Your task to perform on an android device: change alarm snooze length Image 0: 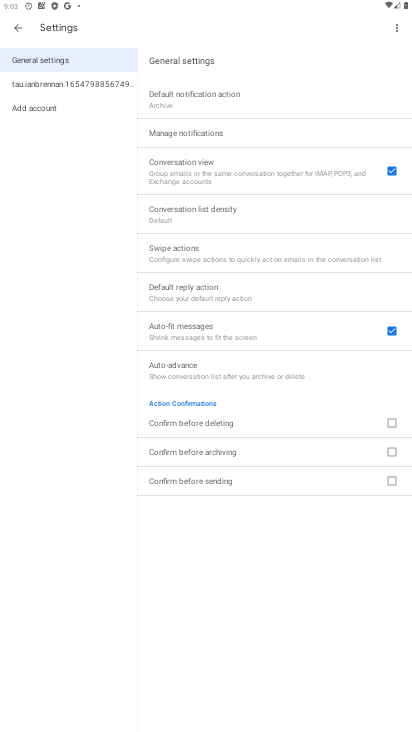
Step 0: click (102, 88)
Your task to perform on an android device: change alarm snooze length Image 1: 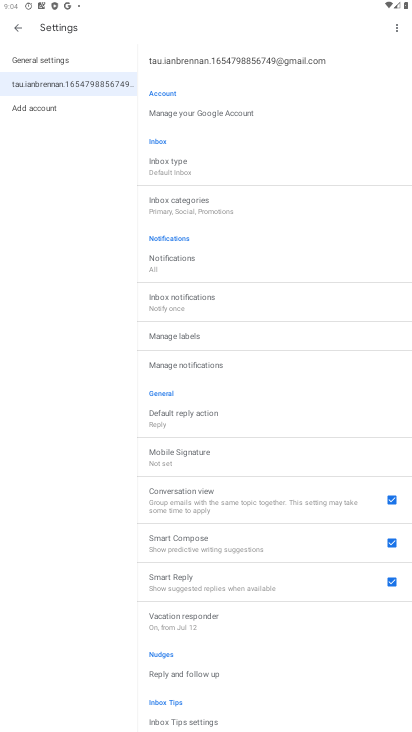
Step 1: click (17, 22)
Your task to perform on an android device: change alarm snooze length Image 2: 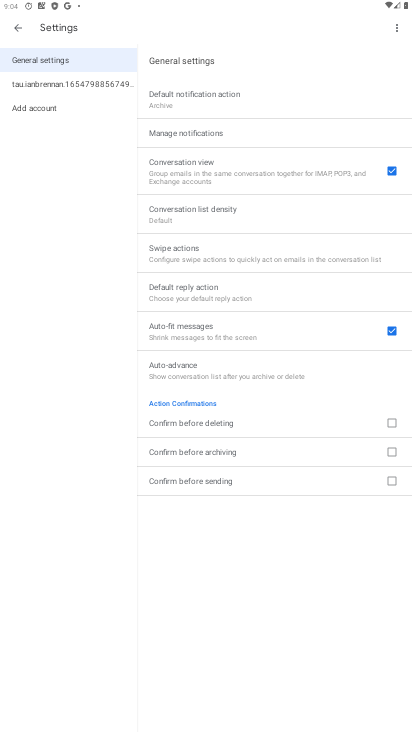
Step 2: click (90, 73)
Your task to perform on an android device: change alarm snooze length Image 3: 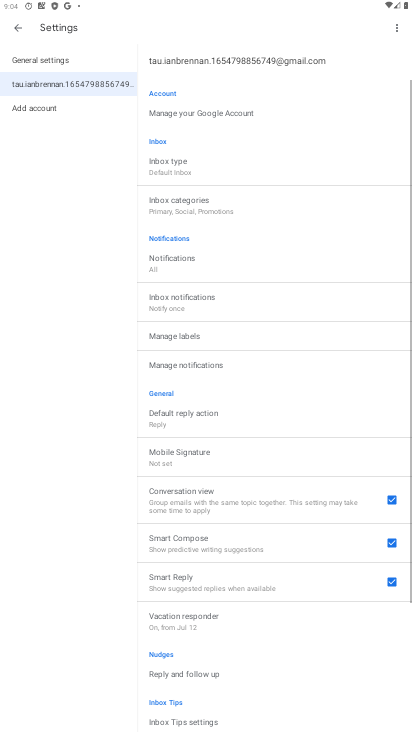
Step 3: drag from (248, 225) to (282, 79)
Your task to perform on an android device: change alarm snooze length Image 4: 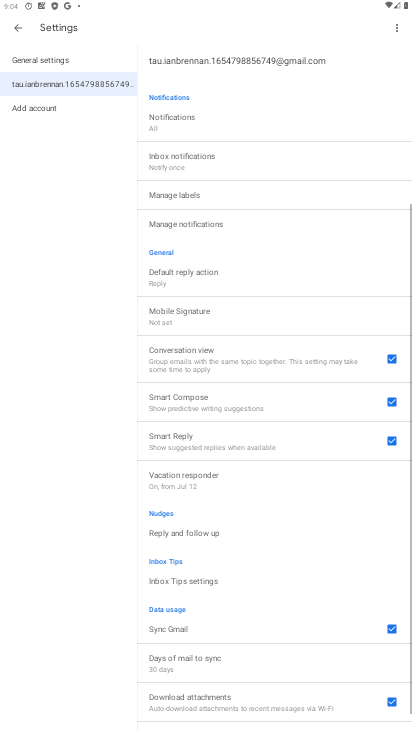
Step 4: drag from (253, 150) to (293, 721)
Your task to perform on an android device: change alarm snooze length Image 5: 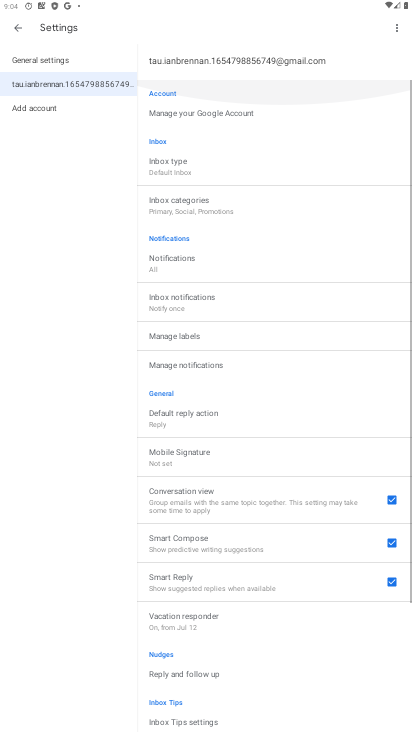
Step 5: drag from (304, 481) to (299, 226)
Your task to perform on an android device: change alarm snooze length Image 6: 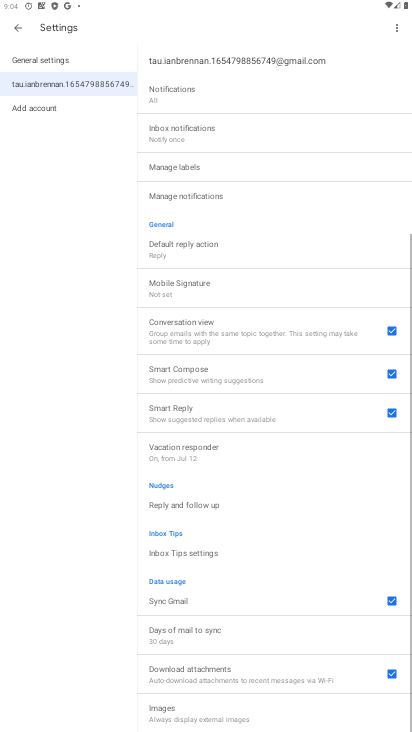
Step 6: drag from (281, 140) to (255, 642)
Your task to perform on an android device: change alarm snooze length Image 7: 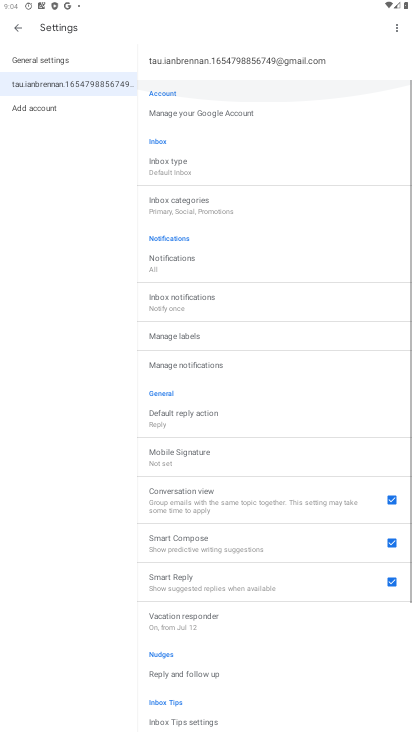
Step 7: drag from (271, 408) to (306, 142)
Your task to perform on an android device: change alarm snooze length Image 8: 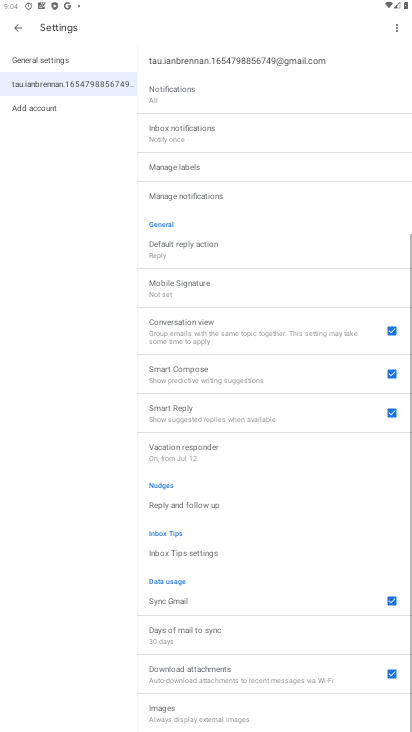
Step 8: drag from (258, 203) to (348, 731)
Your task to perform on an android device: change alarm snooze length Image 9: 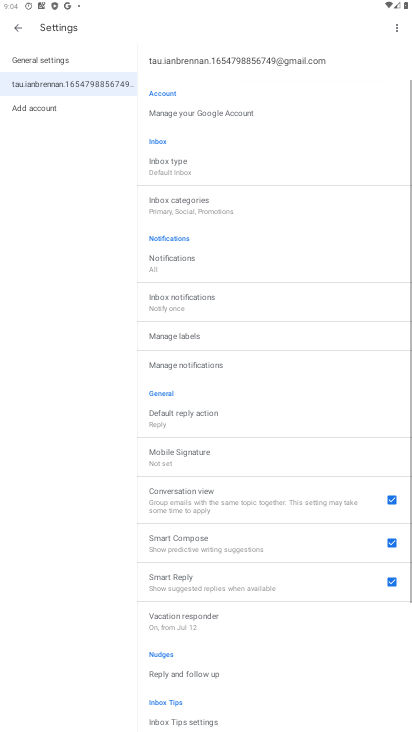
Step 9: drag from (302, 439) to (336, 123)
Your task to perform on an android device: change alarm snooze length Image 10: 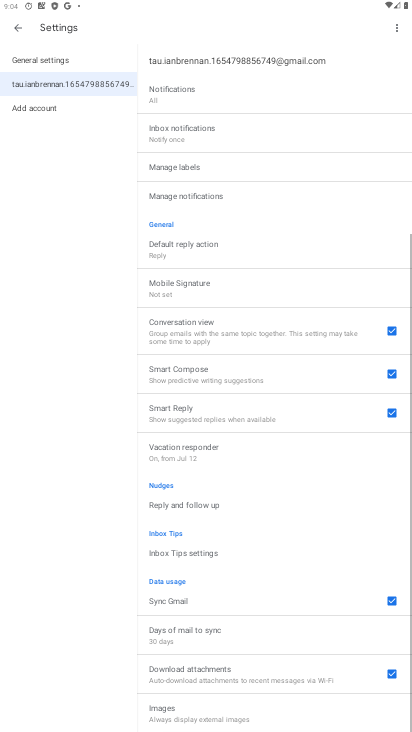
Step 10: drag from (253, 237) to (333, 730)
Your task to perform on an android device: change alarm snooze length Image 11: 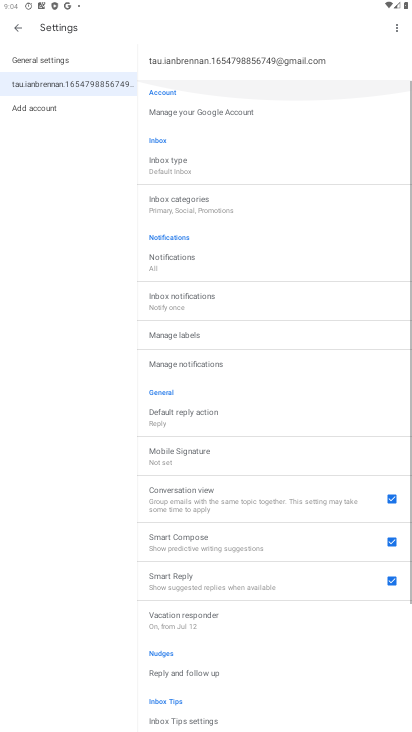
Step 11: drag from (323, 545) to (371, 147)
Your task to perform on an android device: change alarm snooze length Image 12: 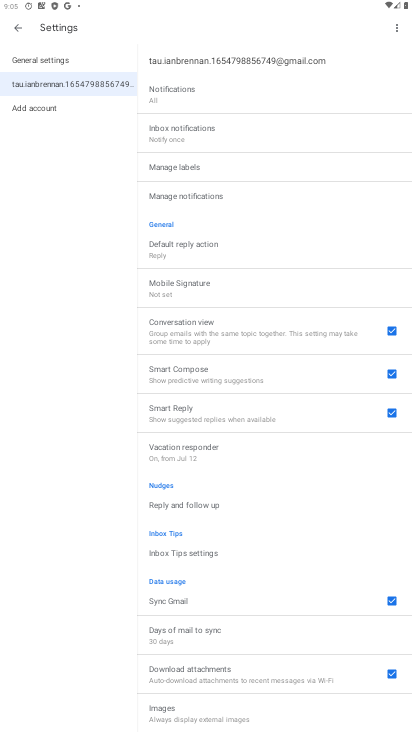
Step 12: press home button
Your task to perform on an android device: change alarm snooze length Image 13: 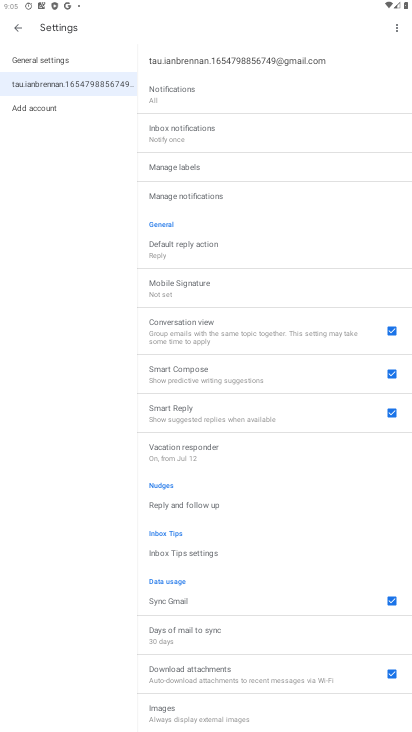
Step 13: press home button
Your task to perform on an android device: change alarm snooze length Image 14: 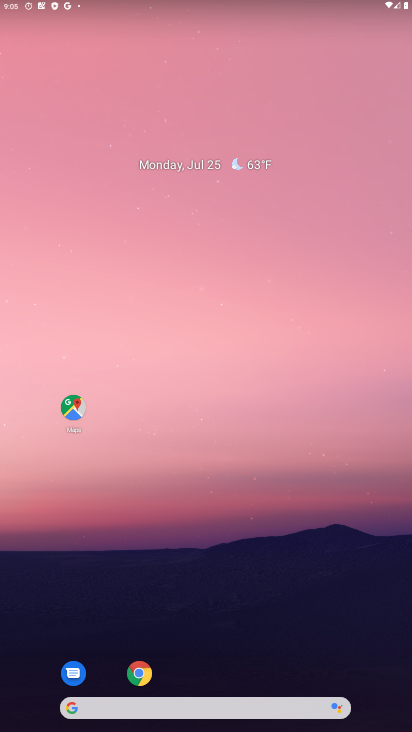
Step 14: drag from (248, 567) to (302, 282)
Your task to perform on an android device: change alarm snooze length Image 15: 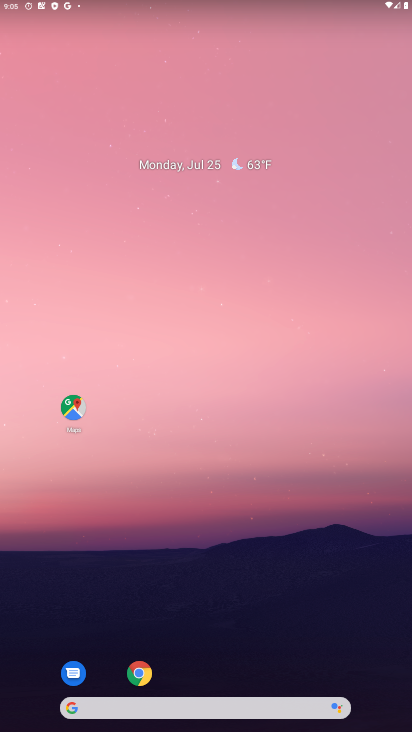
Step 15: drag from (181, 657) to (204, 198)
Your task to perform on an android device: change alarm snooze length Image 16: 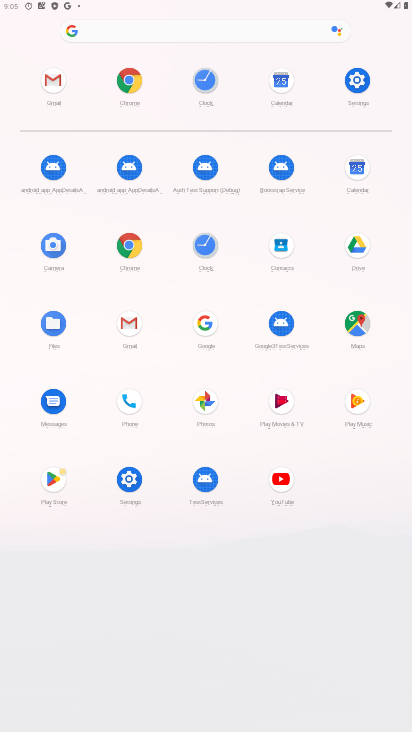
Step 16: click (200, 248)
Your task to perform on an android device: change alarm snooze length Image 17: 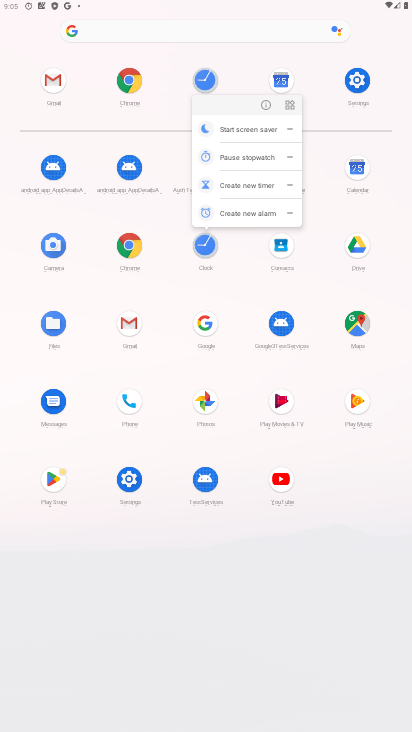
Step 17: click (267, 104)
Your task to perform on an android device: change alarm snooze length Image 18: 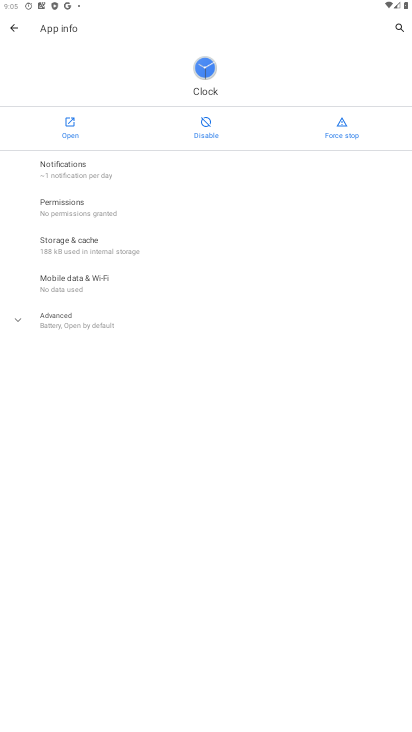
Step 18: click (72, 132)
Your task to perform on an android device: change alarm snooze length Image 19: 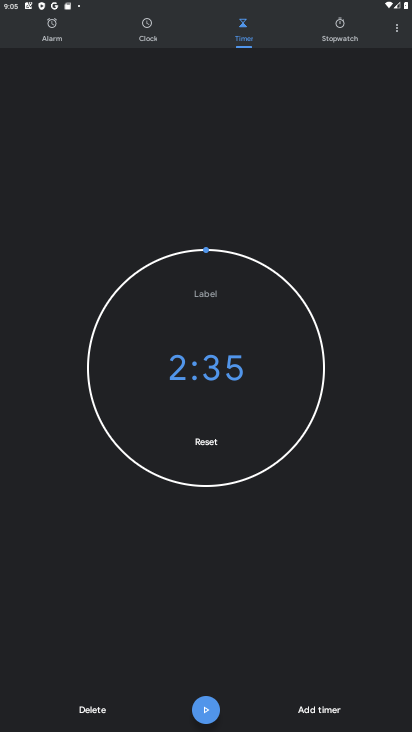
Step 19: click (394, 32)
Your task to perform on an android device: change alarm snooze length Image 20: 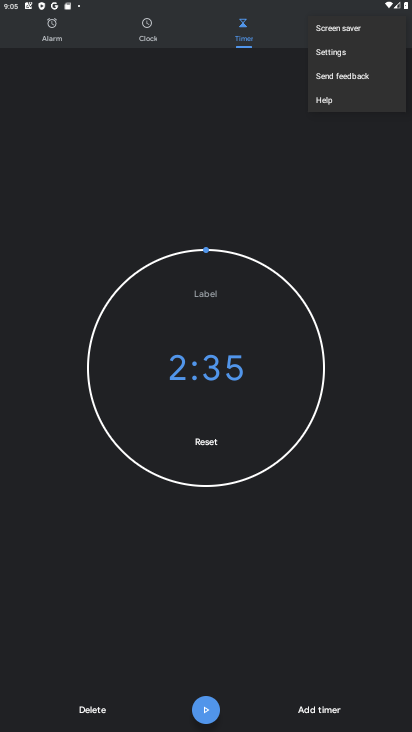
Step 20: click (343, 53)
Your task to perform on an android device: change alarm snooze length Image 21: 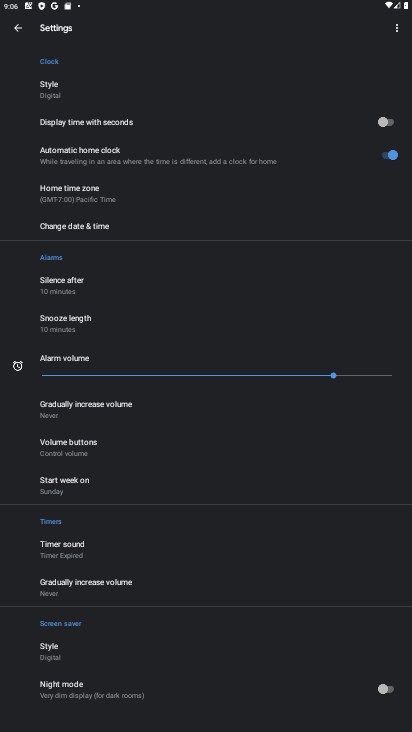
Step 21: drag from (241, 592) to (273, 282)
Your task to perform on an android device: change alarm snooze length Image 22: 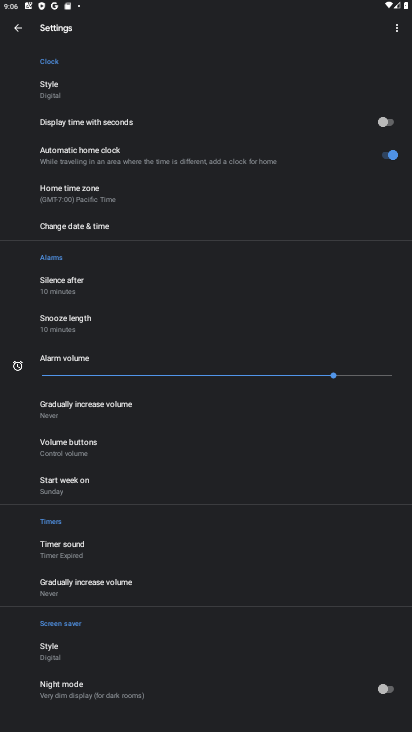
Step 22: drag from (125, 596) to (173, 315)
Your task to perform on an android device: change alarm snooze length Image 23: 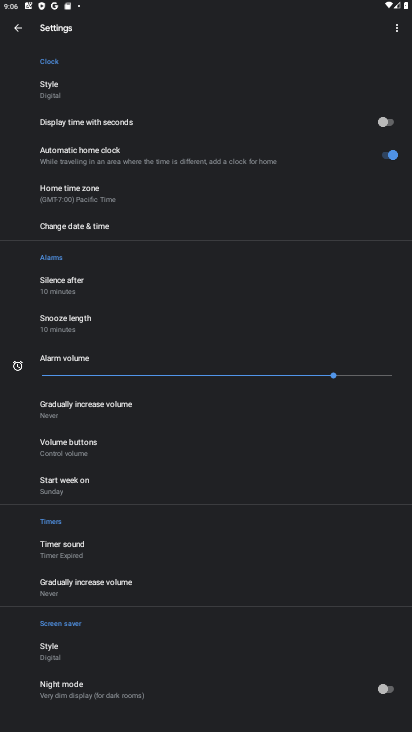
Step 23: click (120, 324)
Your task to perform on an android device: change alarm snooze length Image 24: 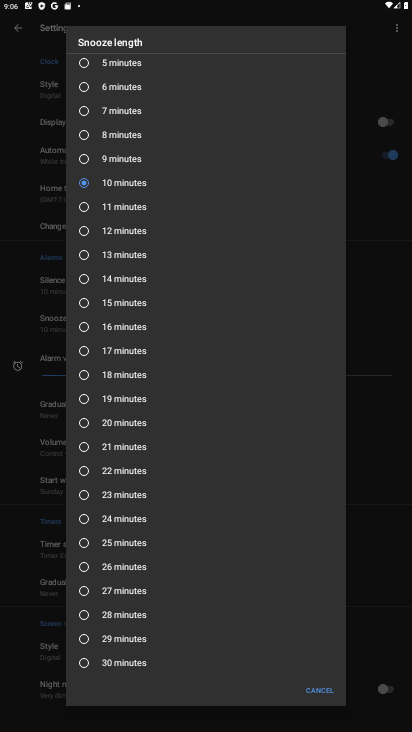
Step 24: drag from (116, 93) to (190, 463)
Your task to perform on an android device: change alarm snooze length Image 25: 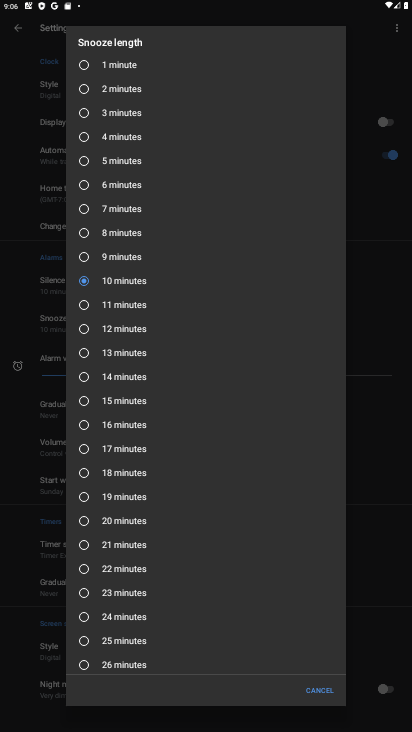
Step 25: click (107, 63)
Your task to perform on an android device: change alarm snooze length Image 26: 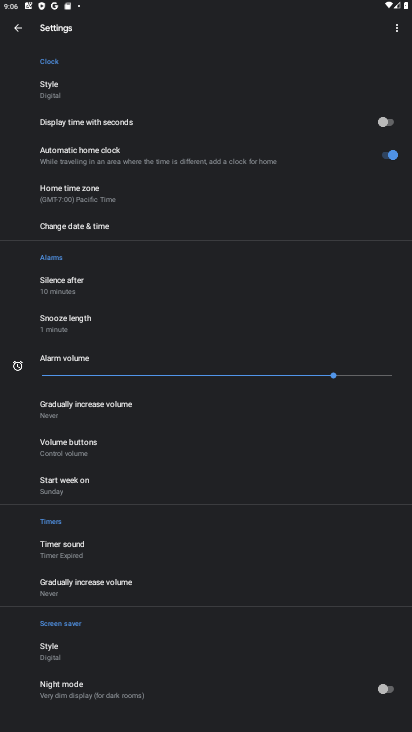
Step 26: drag from (221, 473) to (250, 188)
Your task to perform on an android device: change alarm snooze length Image 27: 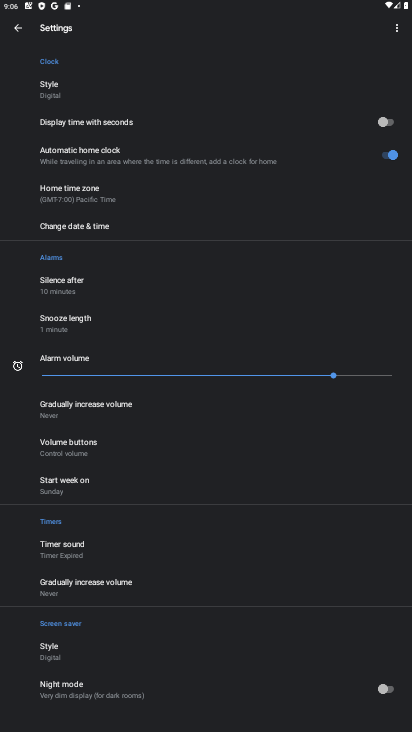
Step 27: drag from (269, 221) to (286, 546)
Your task to perform on an android device: change alarm snooze length Image 28: 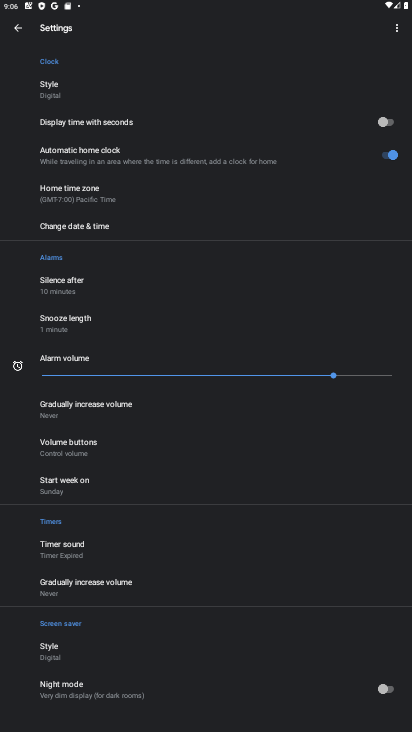
Step 28: drag from (187, 154) to (251, 695)
Your task to perform on an android device: change alarm snooze length Image 29: 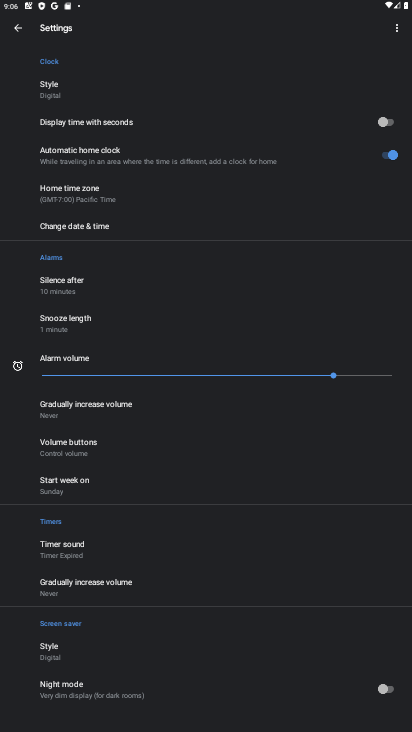
Step 29: drag from (164, 268) to (278, 677)
Your task to perform on an android device: change alarm snooze length Image 30: 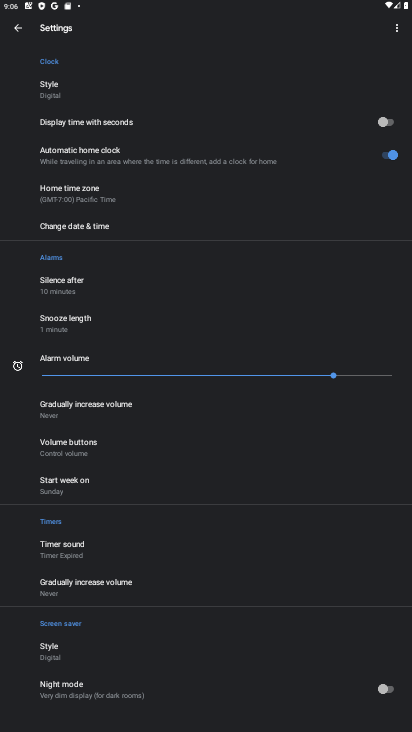
Step 30: click (96, 328)
Your task to perform on an android device: change alarm snooze length Image 31: 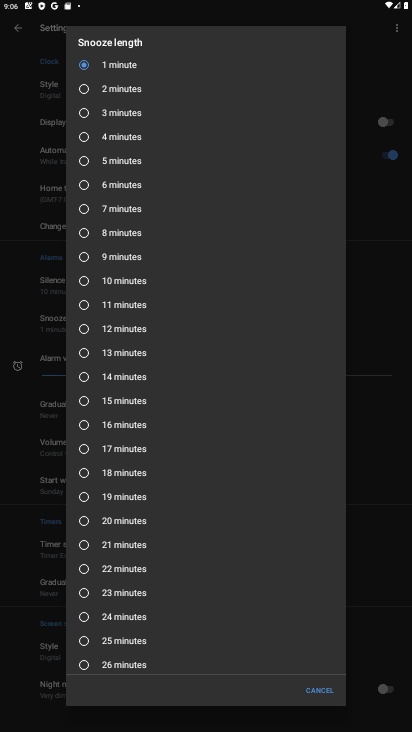
Step 31: task complete